Your task to perform on an android device: Open Youtube and go to the subscriptions tab Image 0: 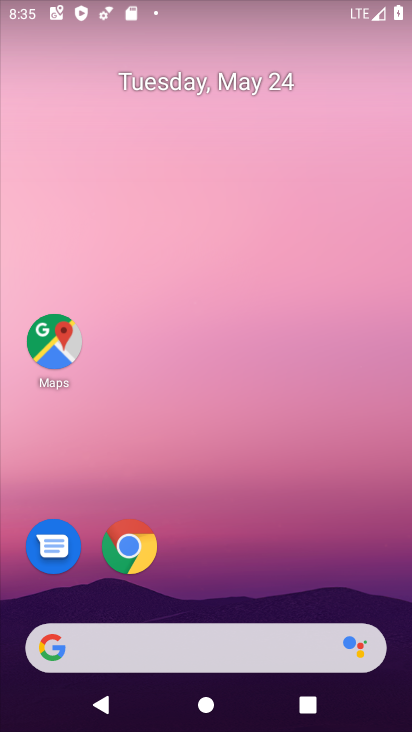
Step 0: drag from (217, 584) to (222, 25)
Your task to perform on an android device: Open Youtube and go to the subscriptions tab Image 1: 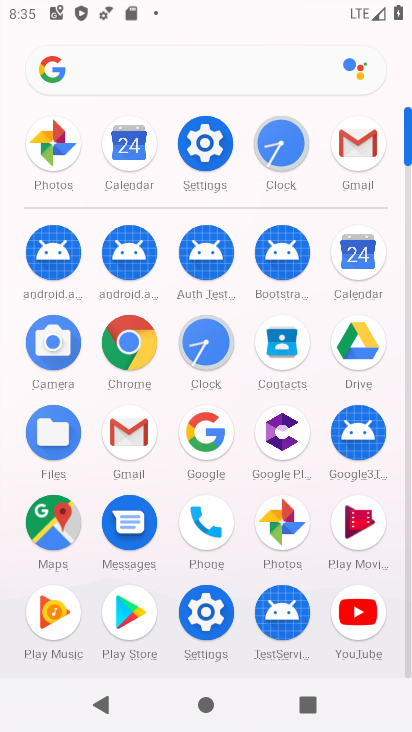
Step 1: click (355, 620)
Your task to perform on an android device: Open Youtube and go to the subscriptions tab Image 2: 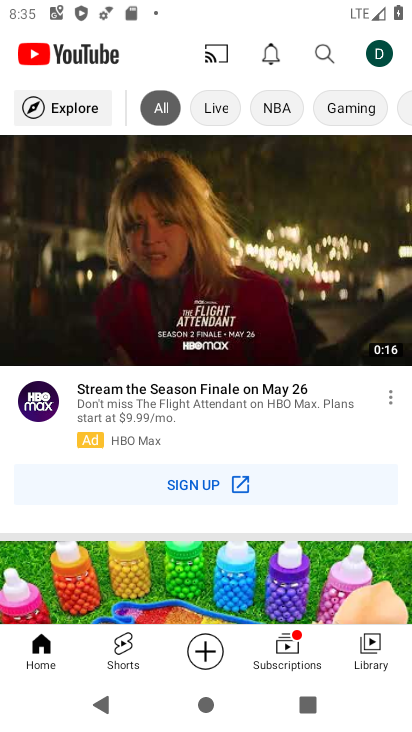
Step 2: click (293, 643)
Your task to perform on an android device: Open Youtube and go to the subscriptions tab Image 3: 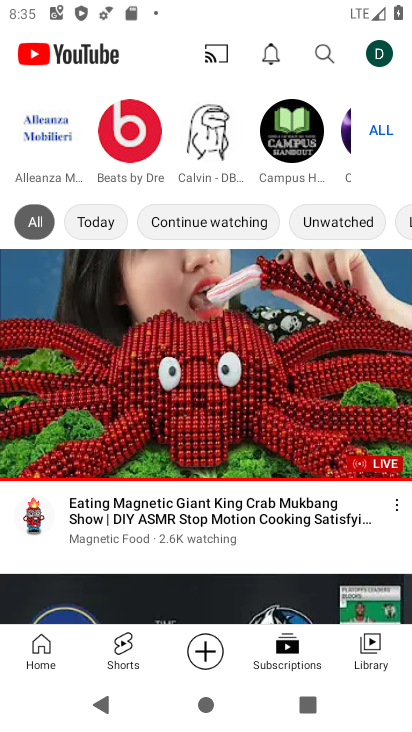
Step 3: task complete